Your task to perform on an android device: open app "Truecaller" (install if not already installed) and go to login screen Image 0: 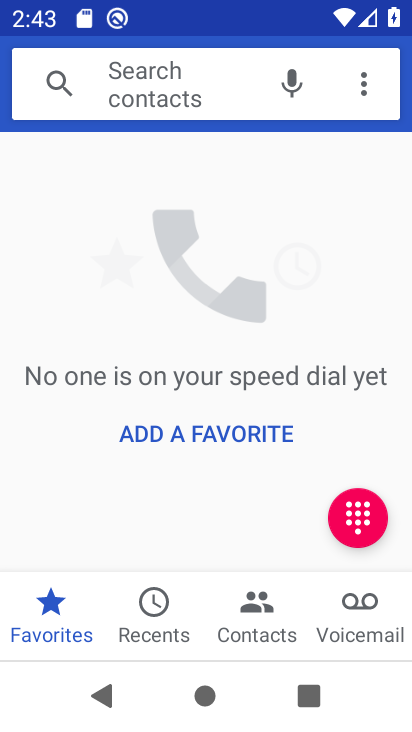
Step 0: press home button
Your task to perform on an android device: open app "Truecaller" (install if not already installed) and go to login screen Image 1: 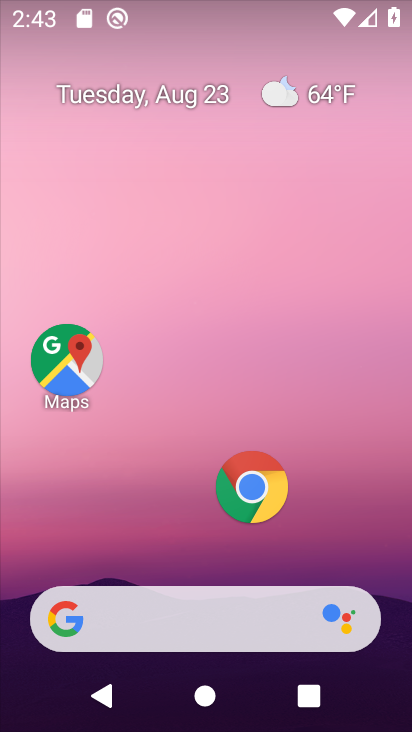
Step 1: drag from (122, 579) to (211, 203)
Your task to perform on an android device: open app "Truecaller" (install if not already installed) and go to login screen Image 2: 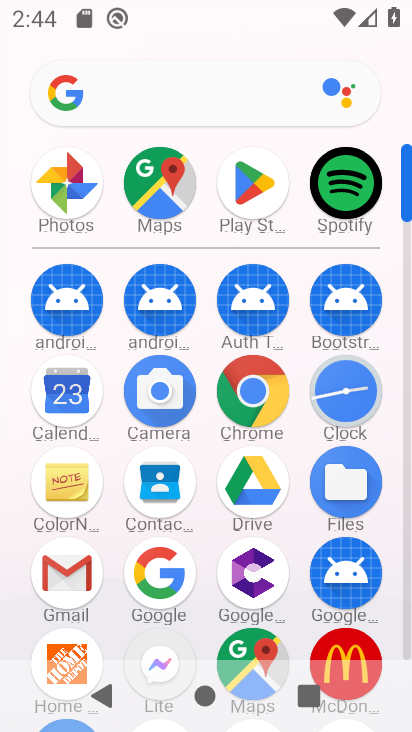
Step 2: click (250, 186)
Your task to perform on an android device: open app "Truecaller" (install if not already installed) and go to login screen Image 3: 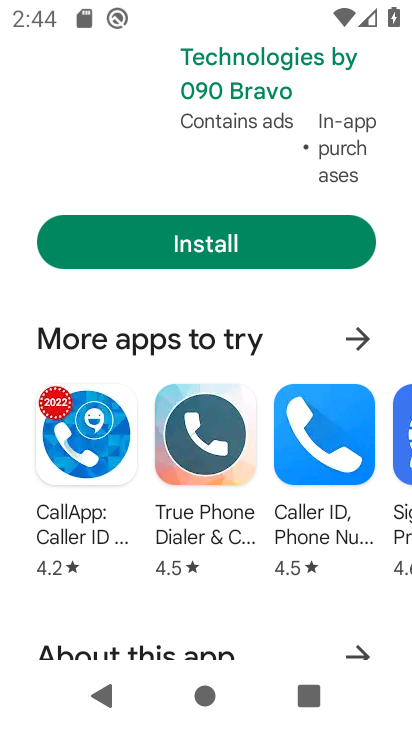
Step 3: press back button
Your task to perform on an android device: open app "Truecaller" (install if not already installed) and go to login screen Image 4: 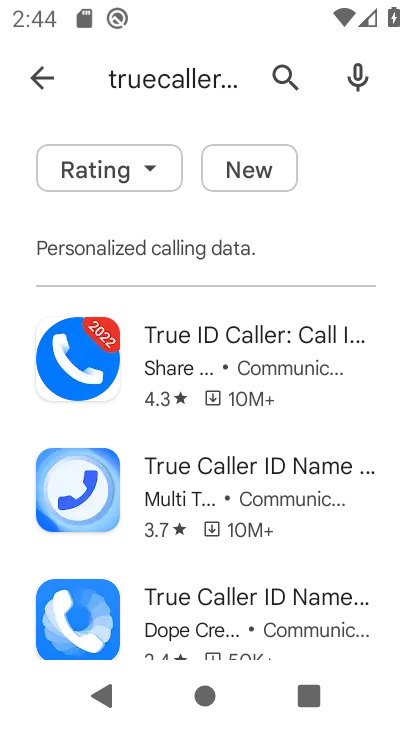
Step 4: click (29, 68)
Your task to perform on an android device: open app "Truecaller" (install if not already installed) and go to login screen Image 5: 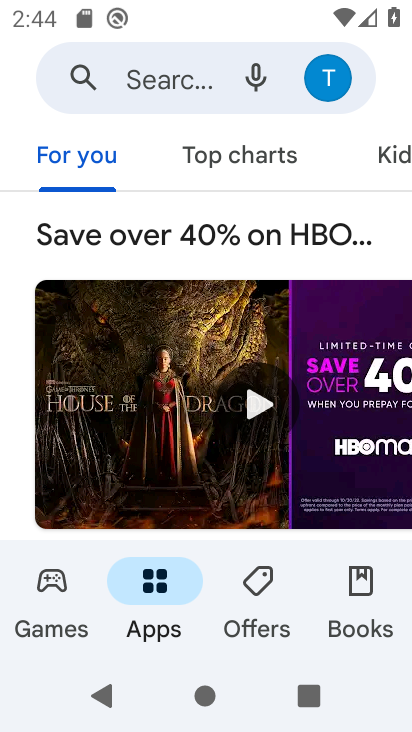
Step 5: click (196, 69)
Your task to perform on an android device: open app "Truecaller" (install if not already installed) and go to login screen Image 6: 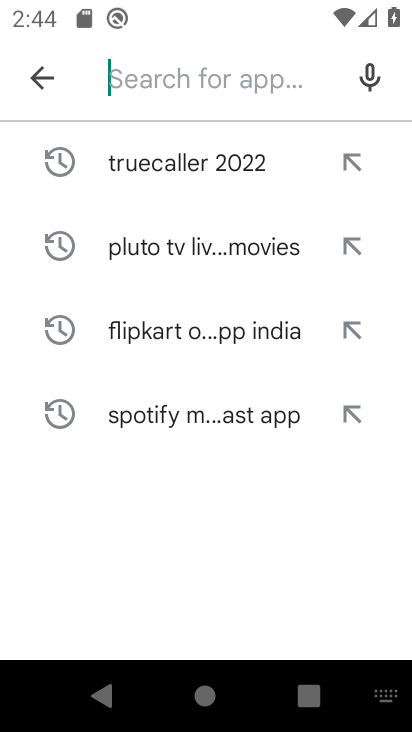
Step 6: type "Truecaller "
Your task to perform on an android device: open app "Truecaller" (install if not already installed) and go to login screen Image 7: 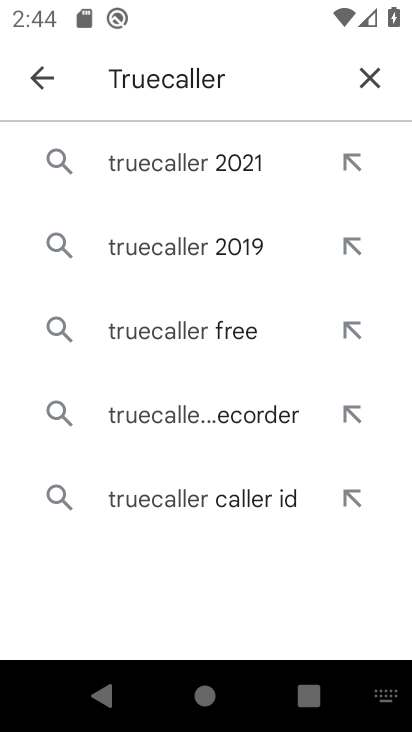
Step 7: click (196, 330)
Your task to perform on an android device: open app "Truecaller" (install if not already installed) and go to login screen Image 8: 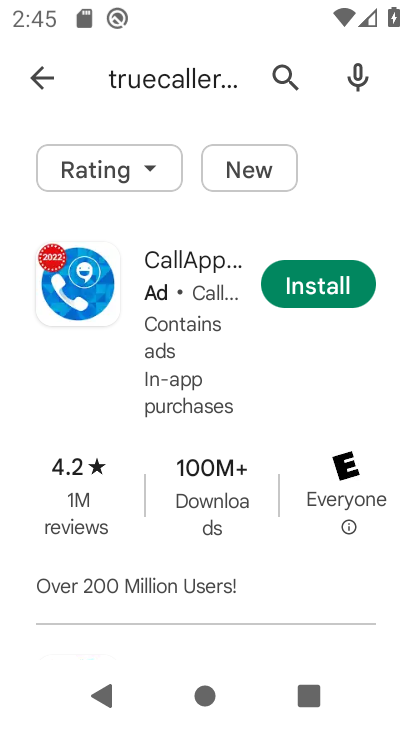
Step 8: click (334, 294)
Your task to perform on an android device: open app "Truecaller" (install if not already installed) and go to login screen Image 9: 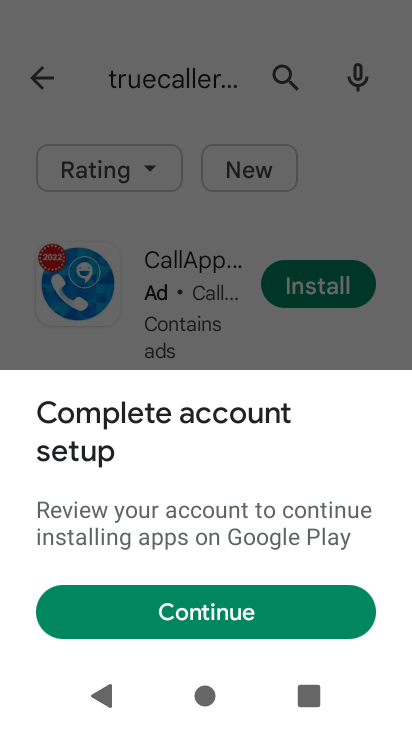
Step 9: task complete